Your task to perform on an android device: Show me the alarms in the clock app Image 0: 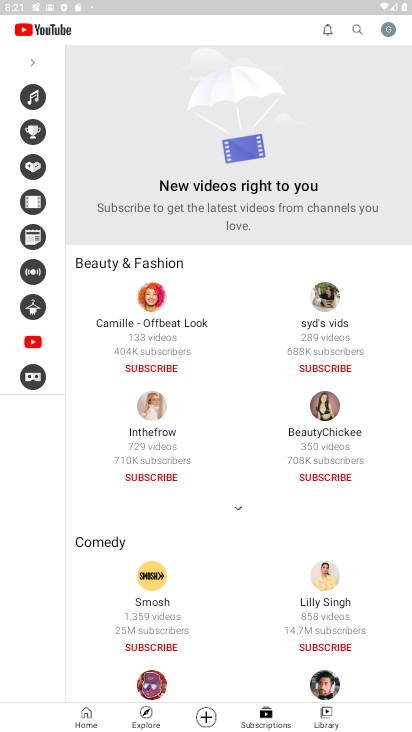
Step 0: press home button
Your task to perform on an android device: Show me the alarms in the clock app Image 1: 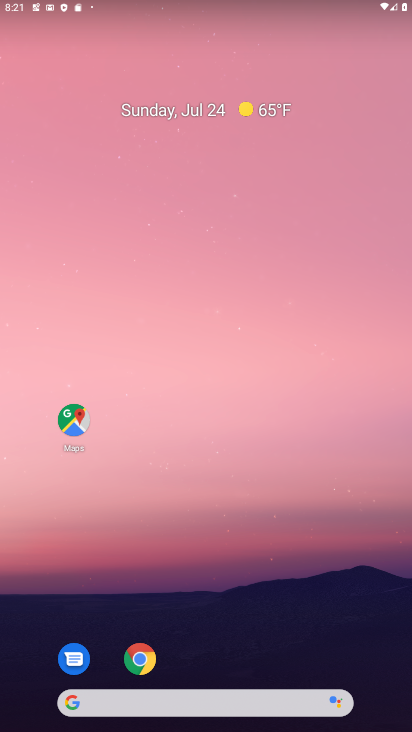
Step 1: drag from (270, 675) to (311, 68)
Your task to perform on an android device: Show me the alarms in the clock app Image 2: 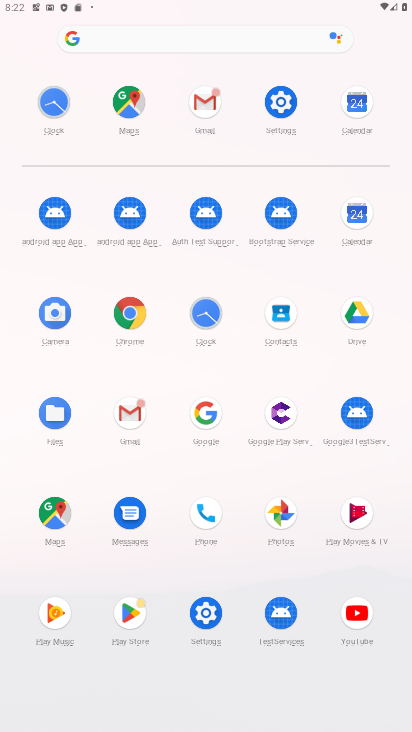
Step 2: click (198, 318)
Your task to perform on an android device: Show me the alarms in the clock app Image 3: 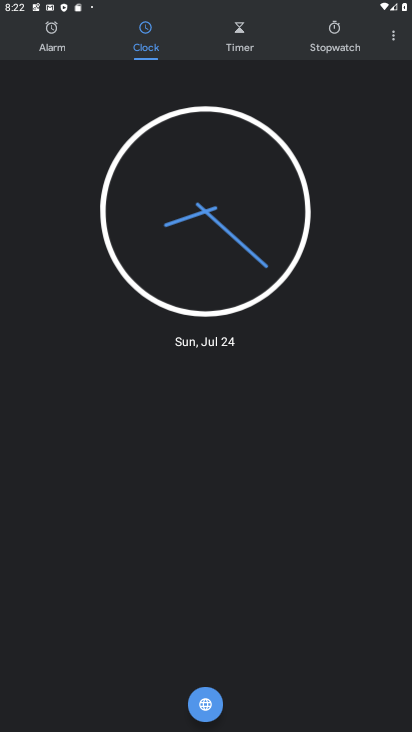
Step 3: click (54, 35)
Your task to perform on an android device: Show me the alarms in the clock app Image 4: 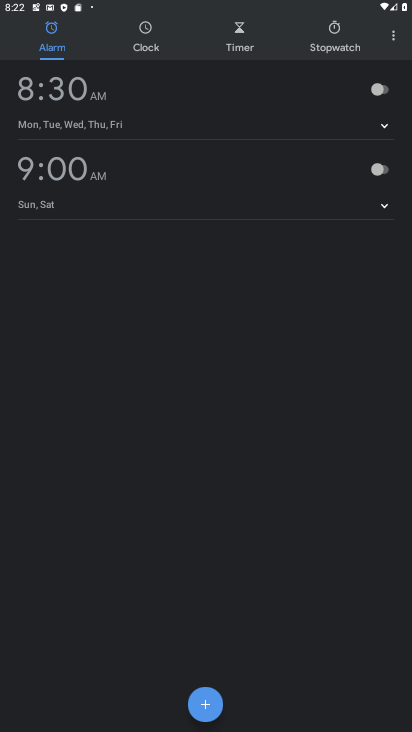
Step 4: task complete